Your task to perform on an android device: Open the Play Movies app and select the watchlist tab. Image 0: 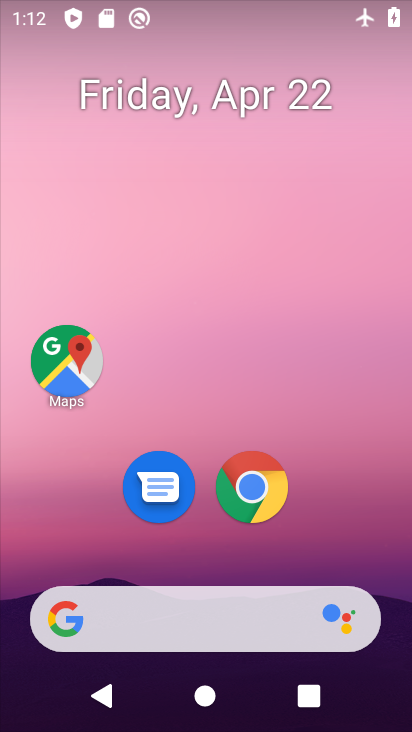
Step 0: drag from (232, 555) to (250, 178)
Your task to perform on an android device: Open the Play Movies app and select the watchlist tab. Image 1: 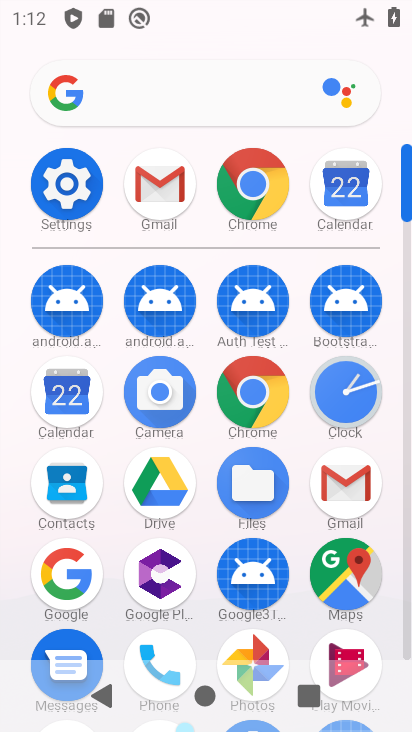
Step 1: click (350, 634)
Your task to perform on an android device: Open the Play Movies app and select the watchlist tab. Image 2: 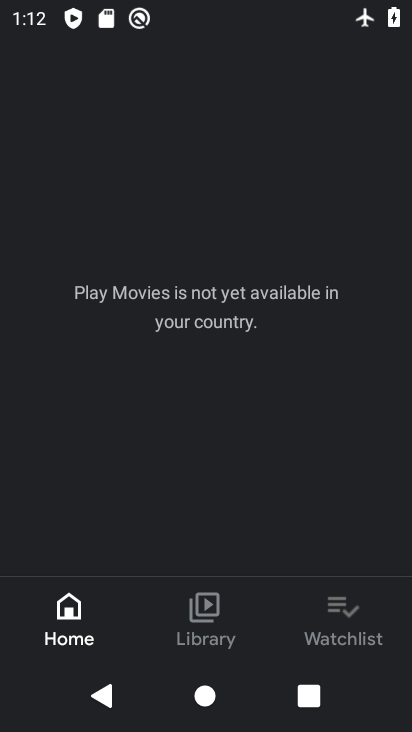
Step 2: click (327, 611)
Your task to perform on an android device: Open the Play Movies app and select the watchlist tab. Image 3: 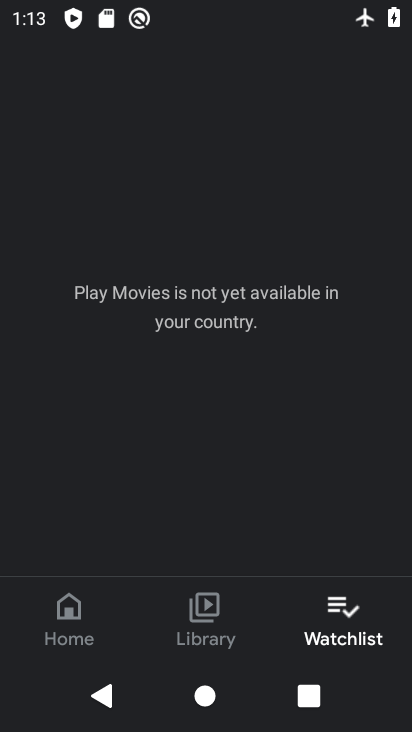
Step 3: task complete